Your task to perform on an android device: Open the stopwatch Image 0: 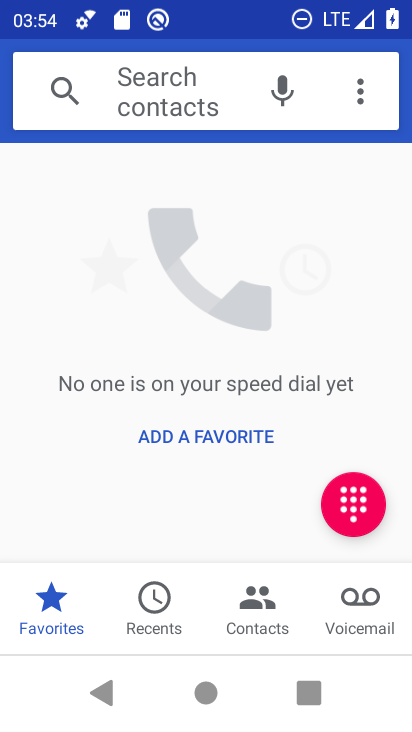
Step 0: click (208, 677)
Your task to perform on an android device: Open the stopwatch Image 1: 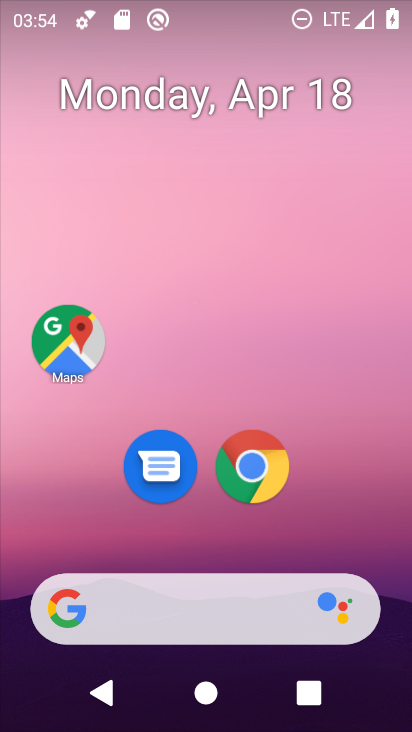
Step 1: drag from (308, 533) to (267, 155)
Your task to perform on an android device: Open the stopwatch Image 2: 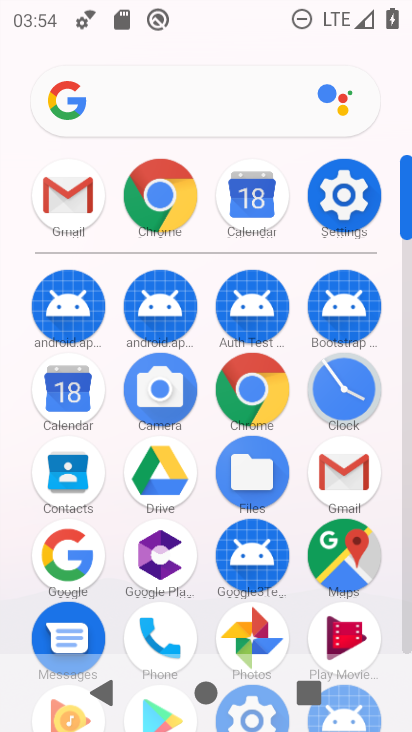
Step 2: click (367, 384)
Your task to perform on an android device: Open the stopwatch Image 3: 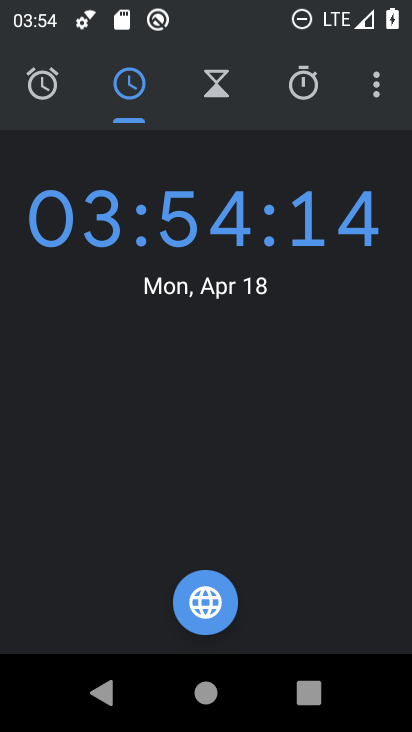
Step 3: click (291, 79)
Your task to perform on an android device: Open the stopwatch Image 4: 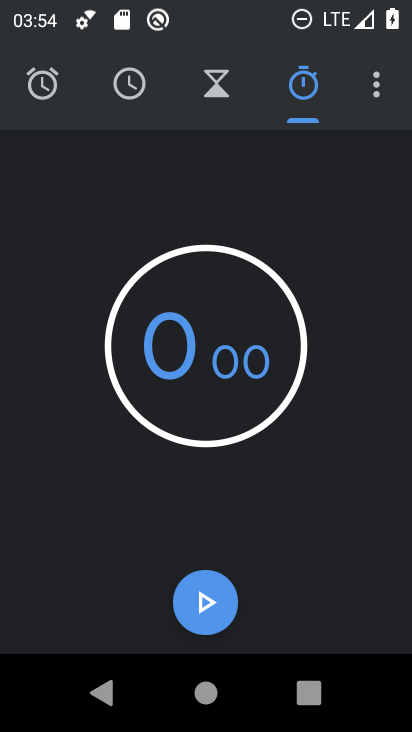
Step 4: task complete